Your task to perform on an android device: toggle notification dots Image 0: 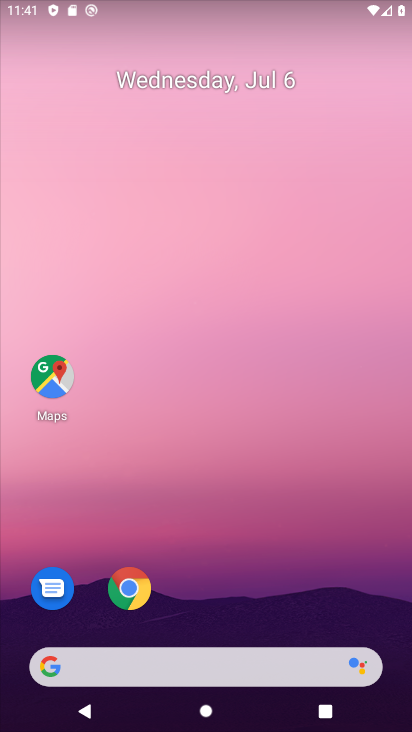
Step 0: drag from (204, 613) to (203, 157)
Your task to perform on an android device: toggle notification dots Image 1: 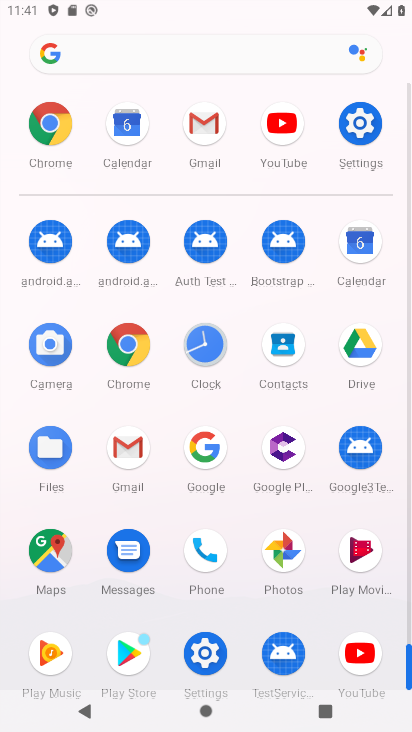
Step 1: click (337, 123)
Your task to perform on an android device: toggle notification dots Image 2: 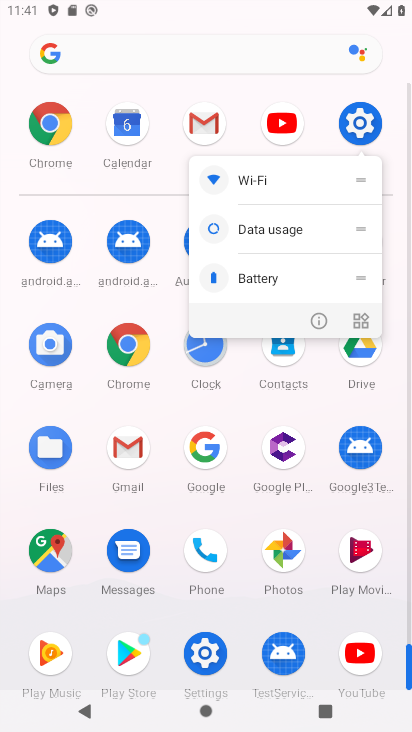
Step 2: click (314, 327)
Your task to perform on an android device: toggle notification dots Image 3: 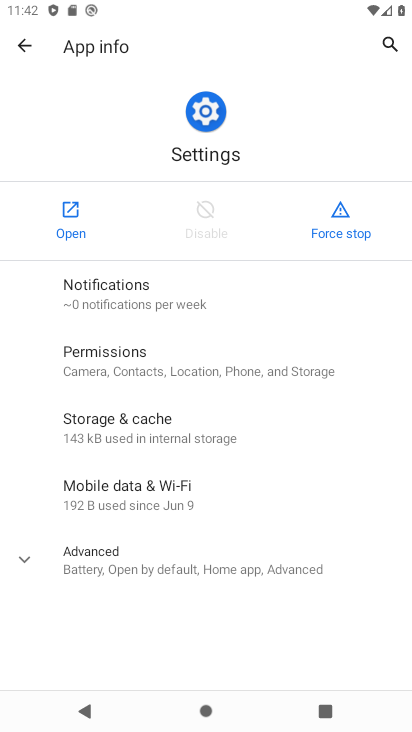
Step 3: click (77, 236)
Your task to perform on an android device: toggle notification dots Image 4: 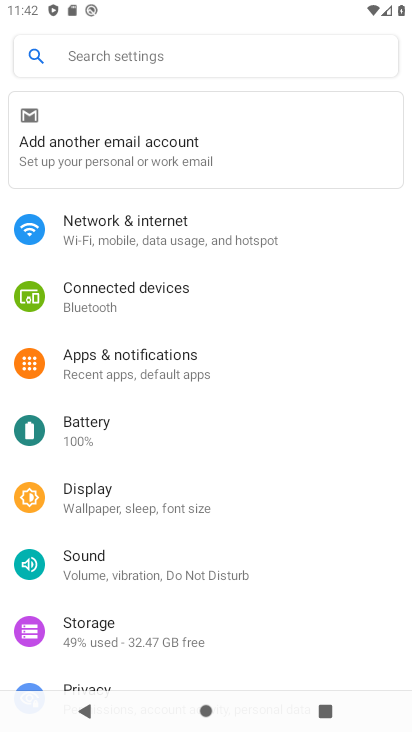
Step 4: click (131, 358)
Your task to perform on an android device: toggle notification dots Image 5: 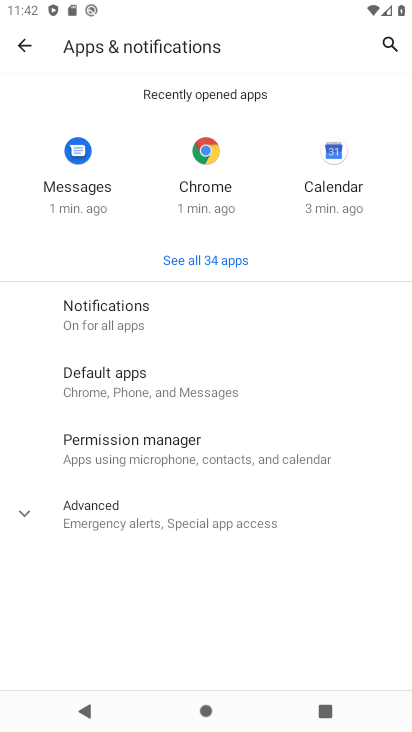
Step 5: click (113, 323)
Your task to perform on an android device: toggle notification dots Image 6: 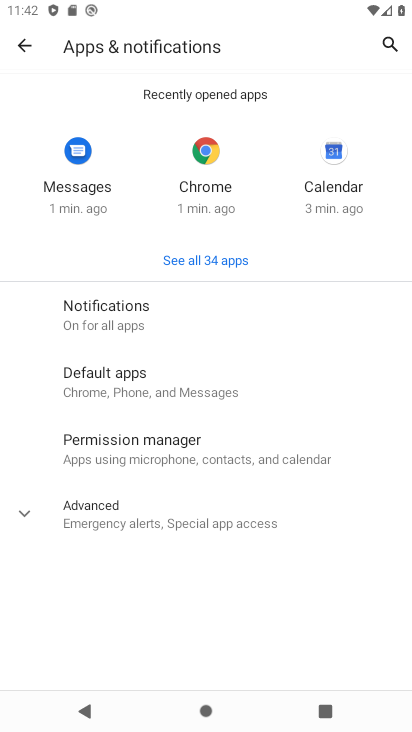
Step 6: click (113, 323)
Your task to perform on an android device: toggle notification dots Image 7: 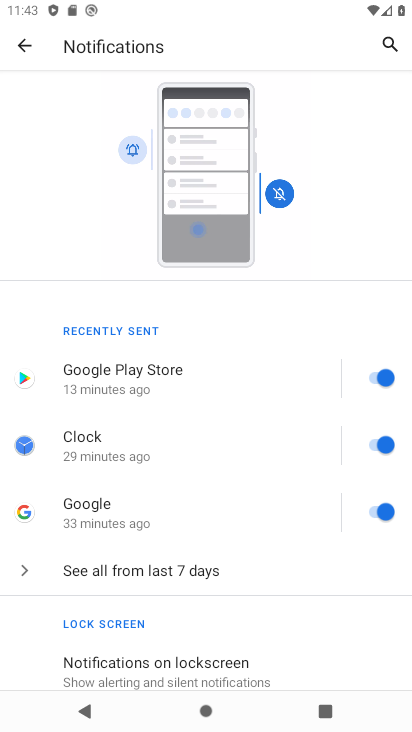
Step 7: drag from (195, 531) to (290, 227)
Your task to perform on an android device: toggle notification dots Image 8: 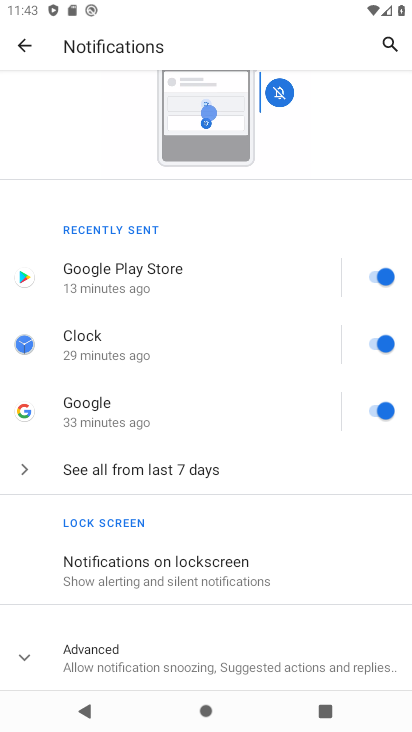
Step 8: click (117, 655)
Your task to perform on an android device: toggle notification dots Image 9: 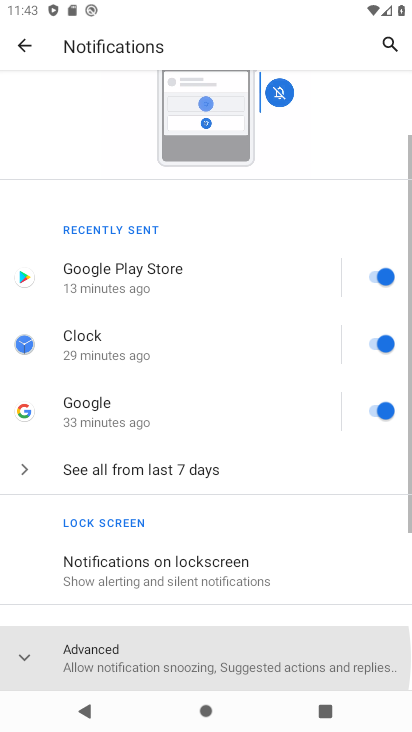
Step 9: drag from (126, 638) to (269, 228)
Your task to perform on an android device: toggle notification dots Image 10: 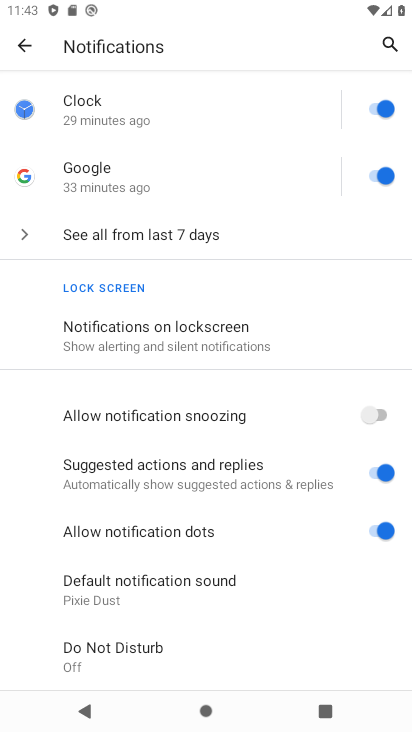
Step 10: click (370, 533)
Your task to perform on an android device: toggle notification dots Image 11: 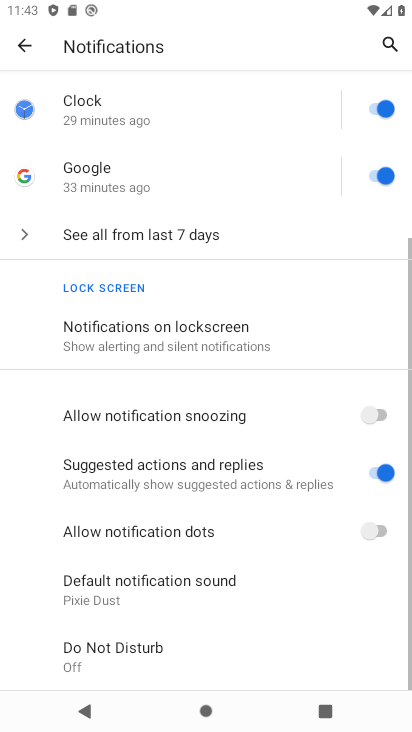
Step 11: task complete